Your task to perform on an android device: read, delete, or share a saved page in the chrome app Image 0: 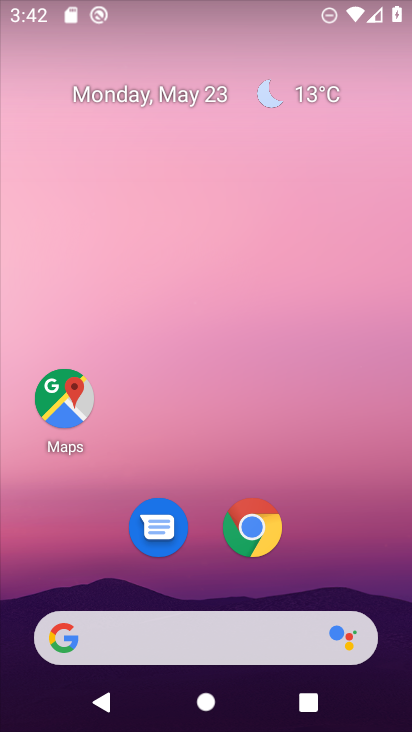
Step 0: press home button
Your task to perform on an android device: read, delete, or share a saved page in the chrome app Image 1: 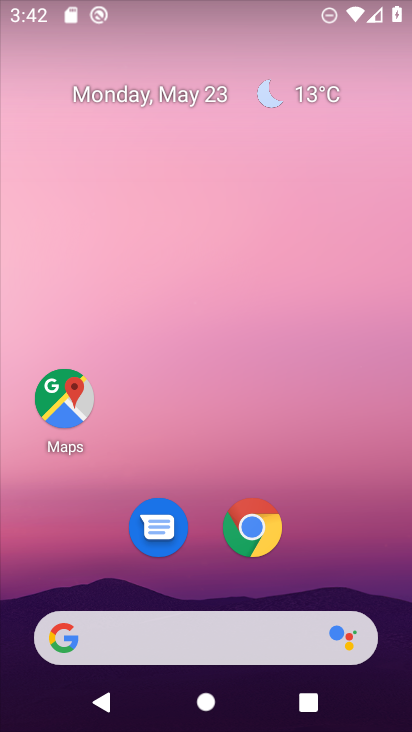
Step 1: click (249, 520)
Your task to perform on an android device: read, delete, or share a saved page in the chrome app Image 2: 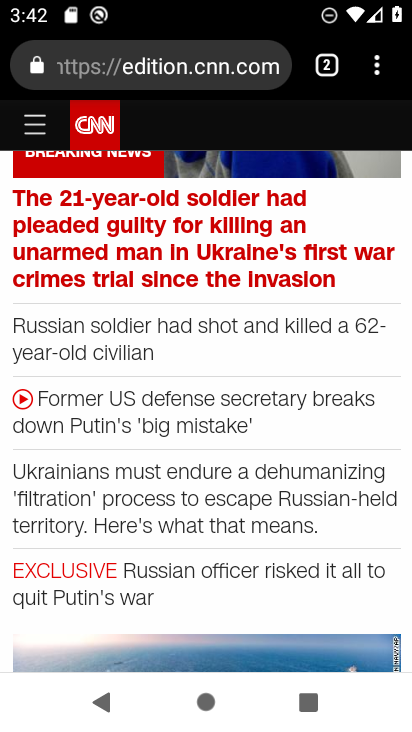
Step 2: click (379, 59)
Your task to perform on an android device: read, delete, or share a saved page in the chrome app Image 3: 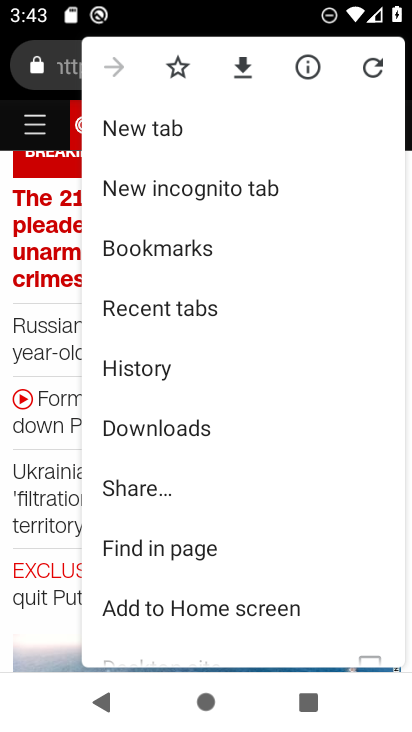
Step 3: click (220, 423)
Your task to perform on an android device: read, delete, or share a saved page in the chrome app Image 4: 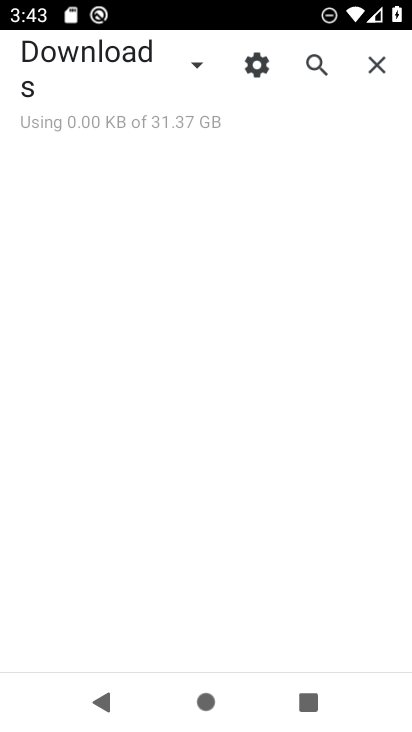
Step 4: task complete